Your task to perform on an android device: Go to Google maps Image 0: 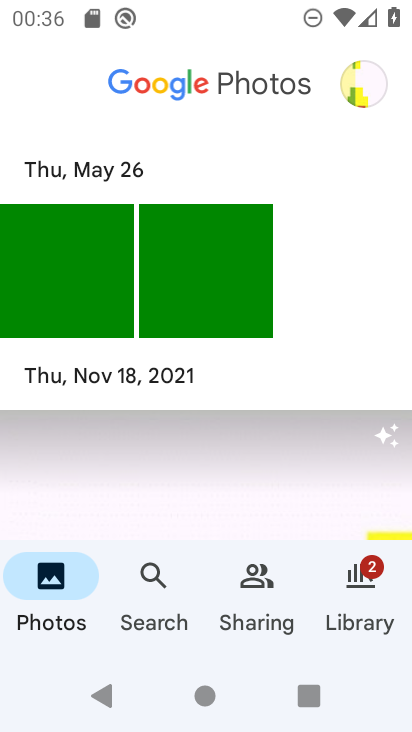
Step 0: press home button
Your task to perform on an android device: Go to Google maps Image 1: 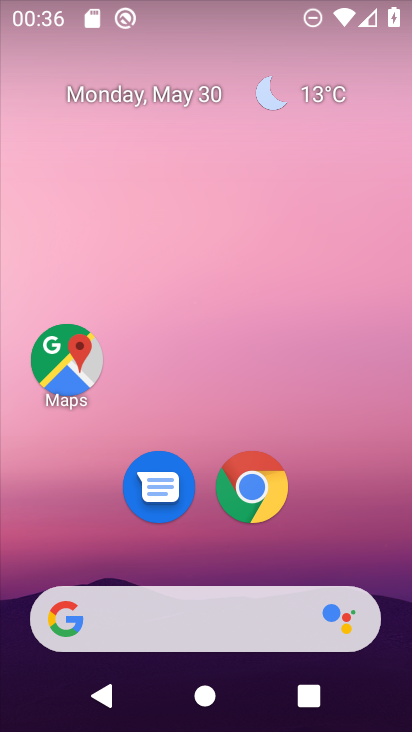
Step 1: click (81, 356)
Your task to perform on an android device: Go to Google maps Image 2: 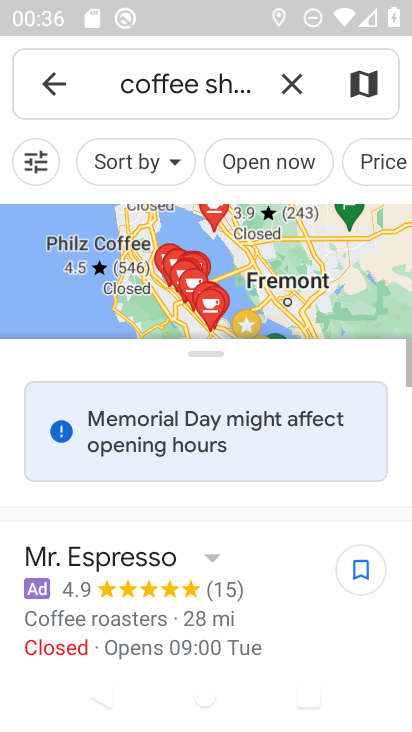
Step 2: click (59, 83)
Your task to perform on an android device: Go to Google maps Image 3: 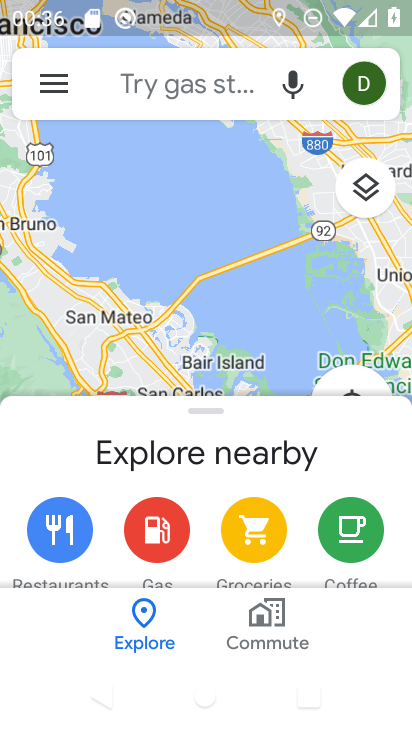
Step 3: task complete